Your task to perform on an android device: Check the weather Image 0: 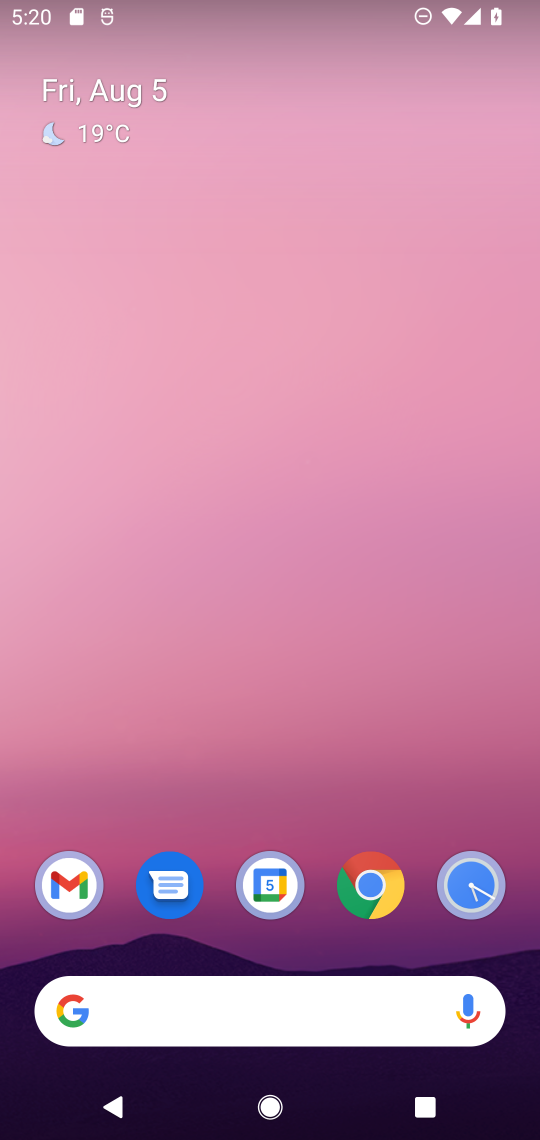
Step 0: drag from (334, 893) to (345, 213)
Your task to perform on an android device: Check the weather Image 1: 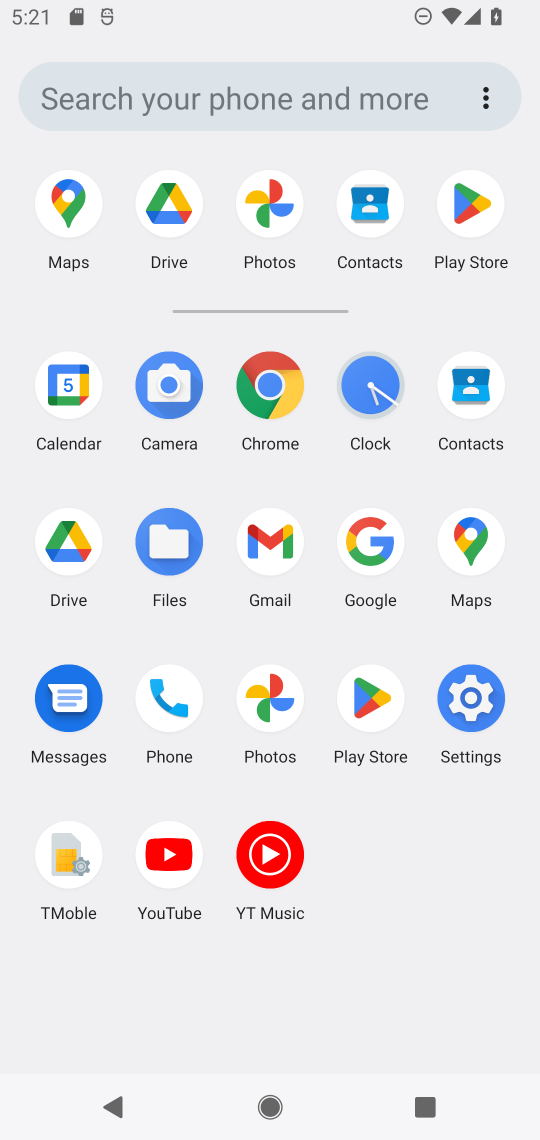
Step 1: click (366, 535)
Your task to perform on an android device: Check the weather Image 2: 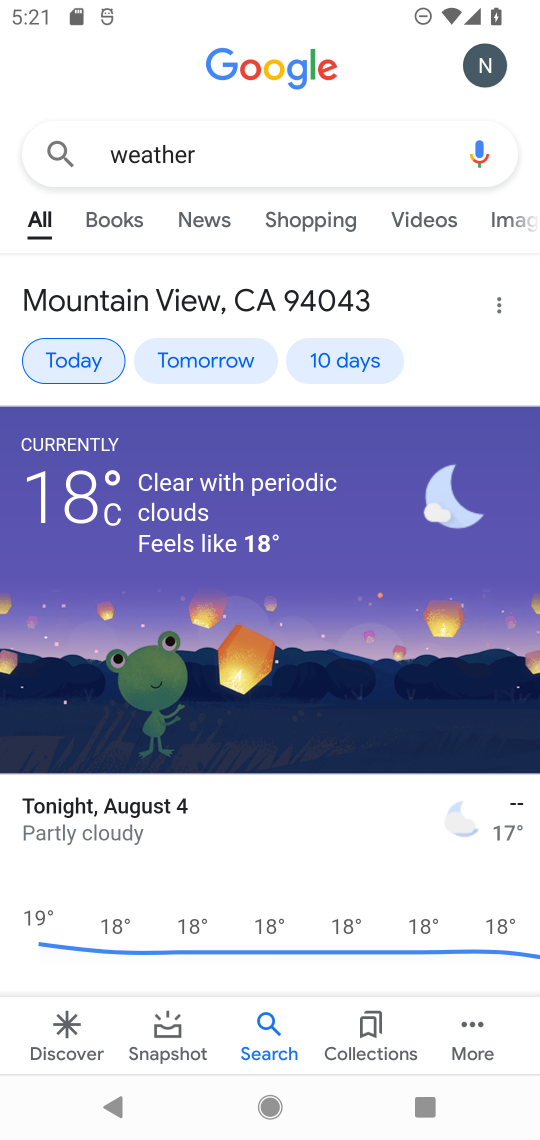
Step 2: click (78, 362)
Your task to perform on an android device: Check the weather Image 3: 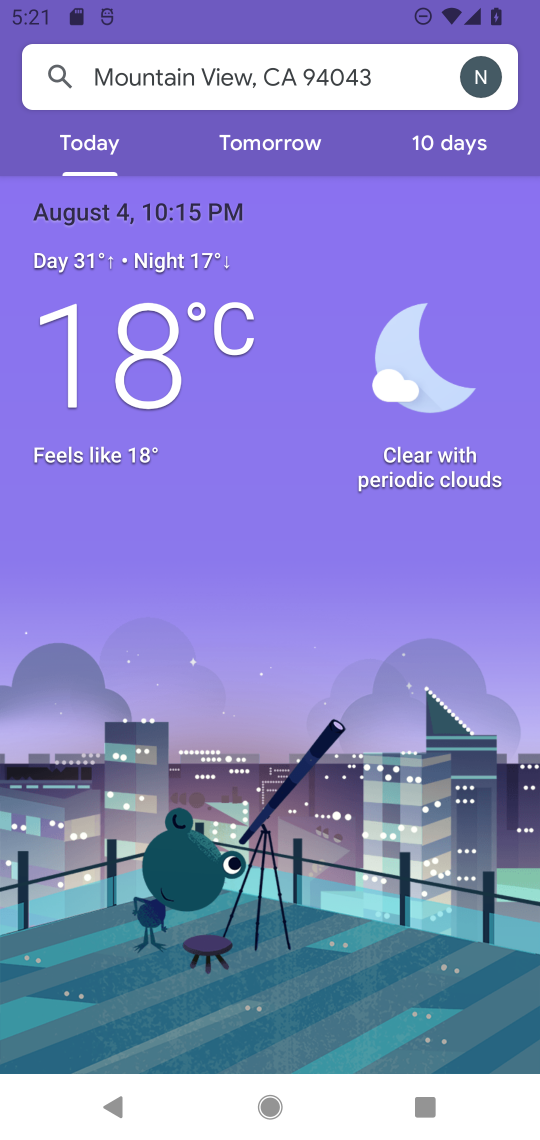
Step 3: task complete